Your task to perform on an android device: Go to network settings Image 0: 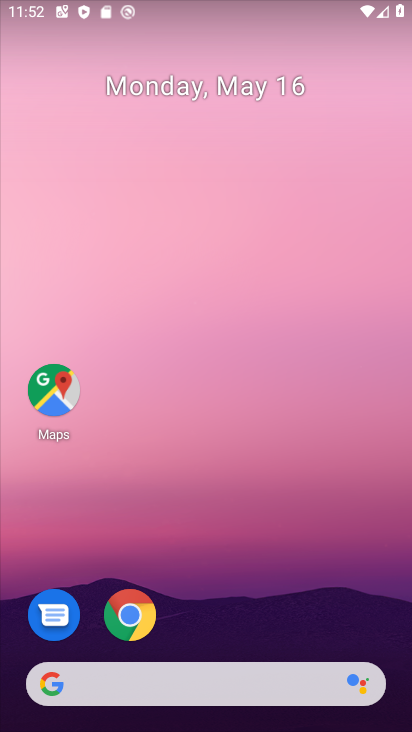
Step 0: drag from (178, 664) to (178, 197)
Your task to perform on an android device: Go to network settings Image 1: 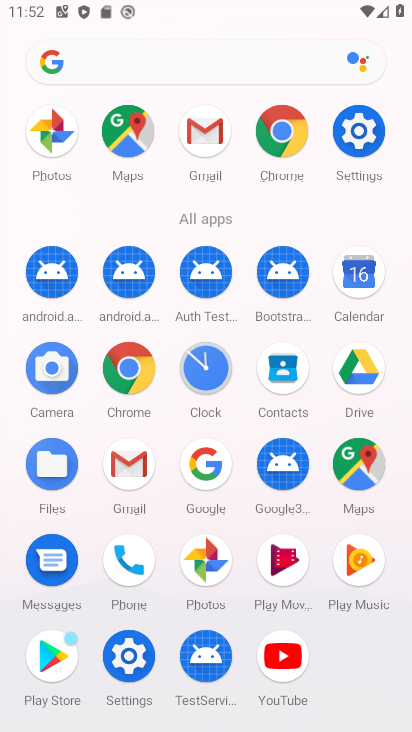
Step 1: click (350, 132)
Your task to perform on an android device: Go to network settings Image 2: 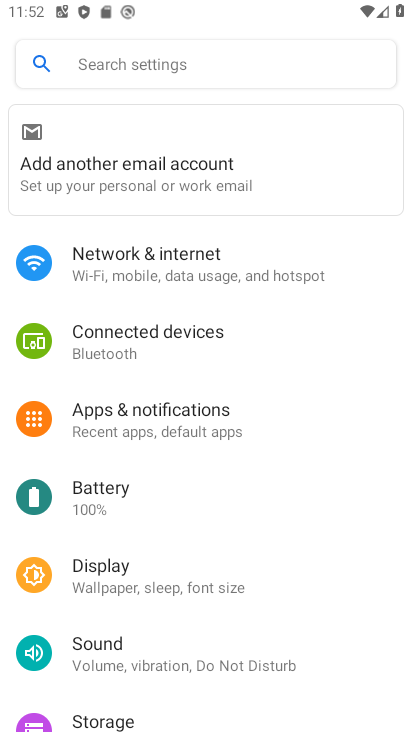
Step 2: click (154, 262)
Your task to perform on an android device: Go to network settings Image 3: 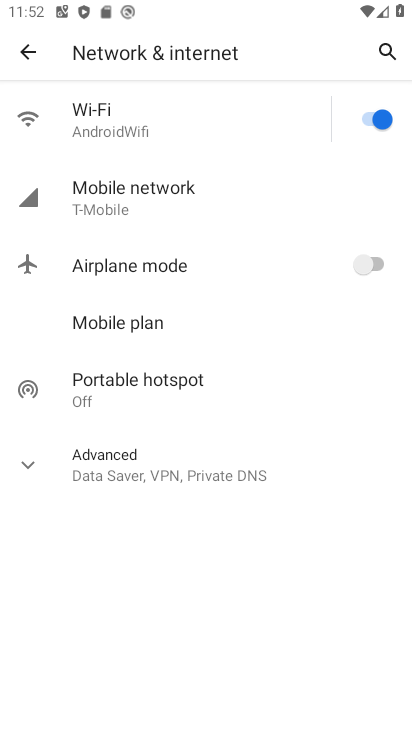
Step 3: click (176, 476)
Your task to perform on an android device: Go to network settings Image 4: 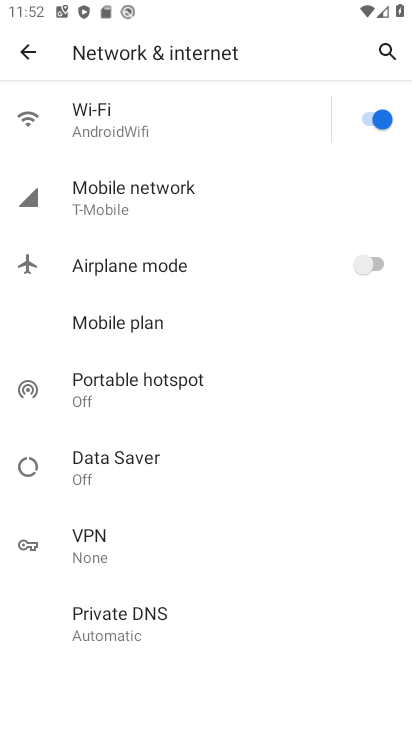
Step 4: task complete